Your task to perform on an android device: choose inbox layout in the gmail app Image 0: 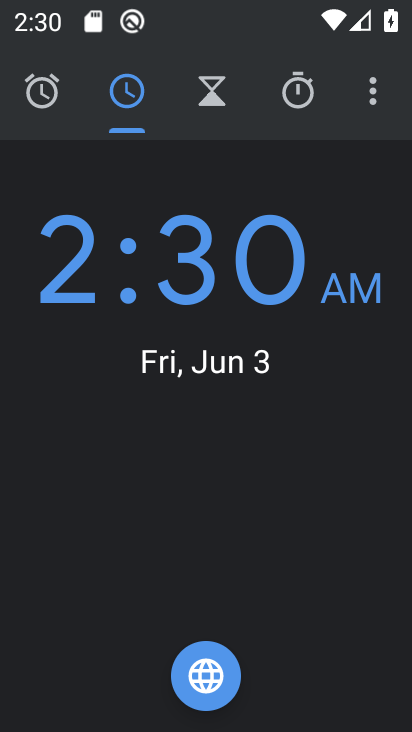
Step 0: press back button
Your task to perform on an android device: choose inbox layout in the gmail app Image 1: 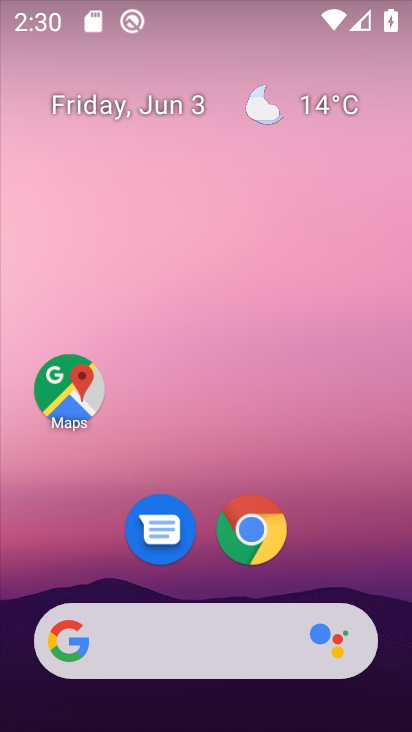
Step 1: drag from (224, 663) to (118, 23)
Your task to perform on an android device: choose inbox layout in the gmail app Image 2: 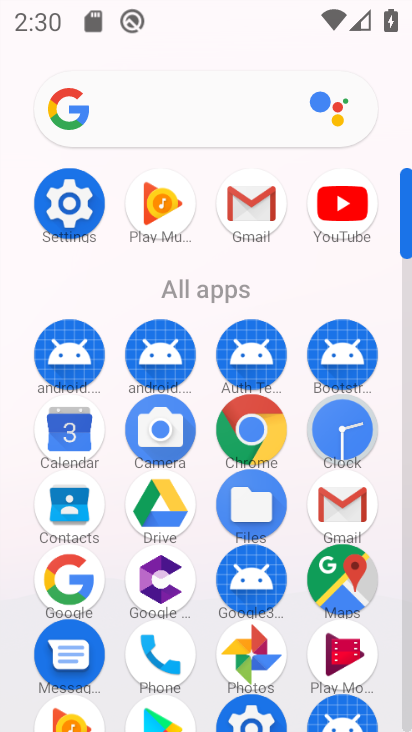
Step 2: click (339, 487)
Your task to perform on an android device: choose inbox layout in the gmail app Image 3: 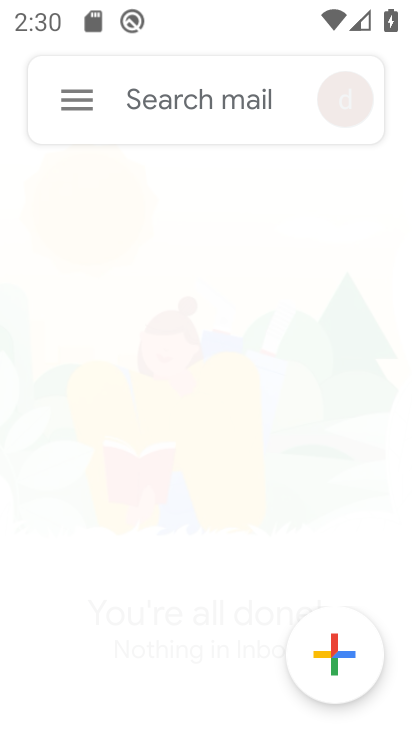
Step 3: click (71, 96)
Your task to perform on an android device: choose inbox layout in the gmail app Image 4: 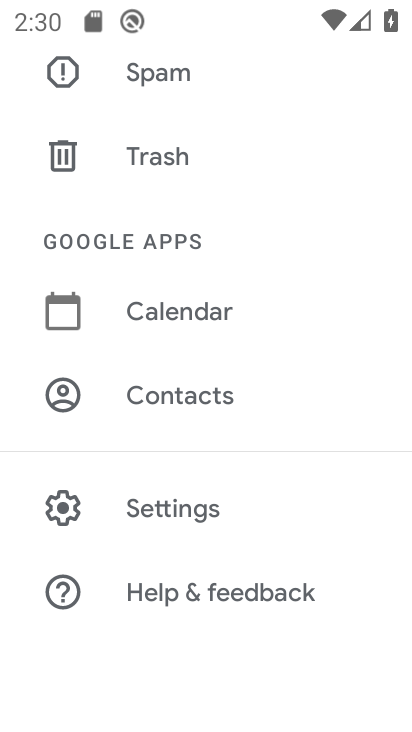
Step 4: click (166, 508)
Your task to perform on an android device: choose inbox layout in the gmail app Image 5: 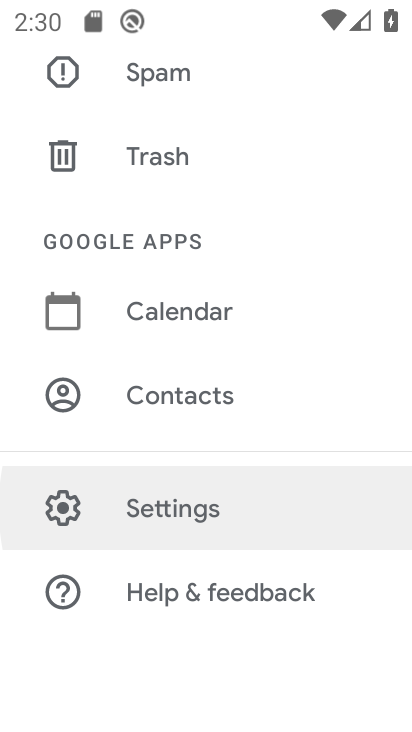
Step 5: click (166, 508)
Your task to perform on an android device: choose inbox layout in the gmail app Image 6: 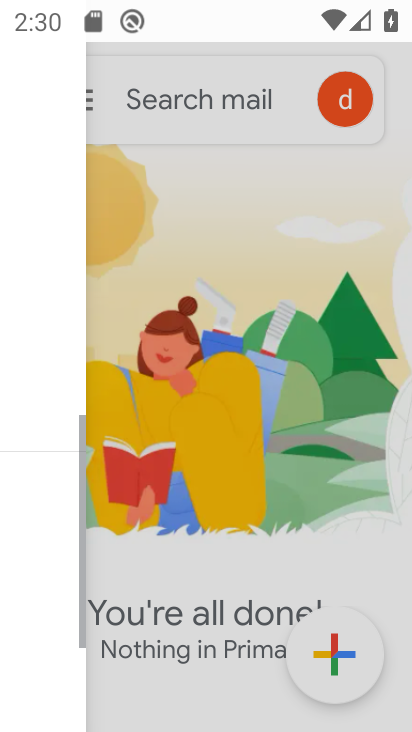
Step 6: click (166, 508)
Your task to perform on an android device: choose inbox layout in the gmail app Image 7: 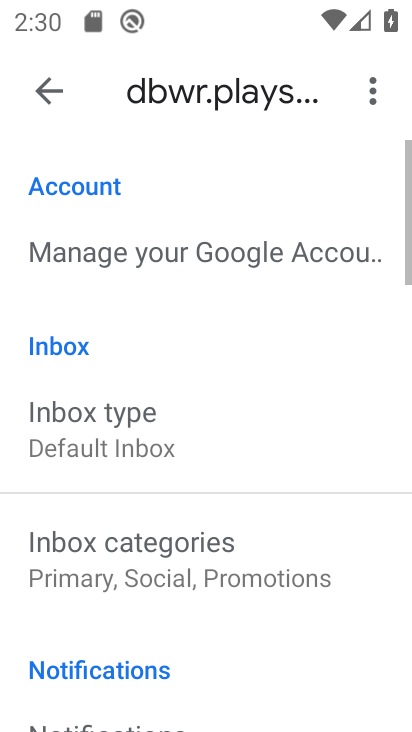
Step 7: click (89, 439)
Your task to perform on an android device: choose inbox layout in the gmail app Image 8: 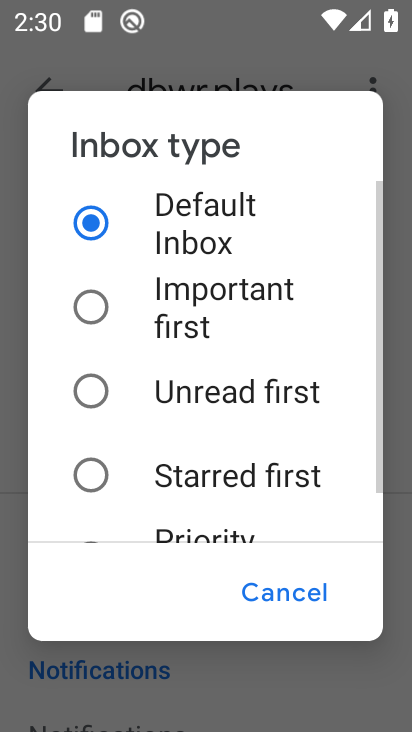
Step 8: click (316, 594)
Your task to perform on an android device: choose inbox layout in the gmail app Image 9: 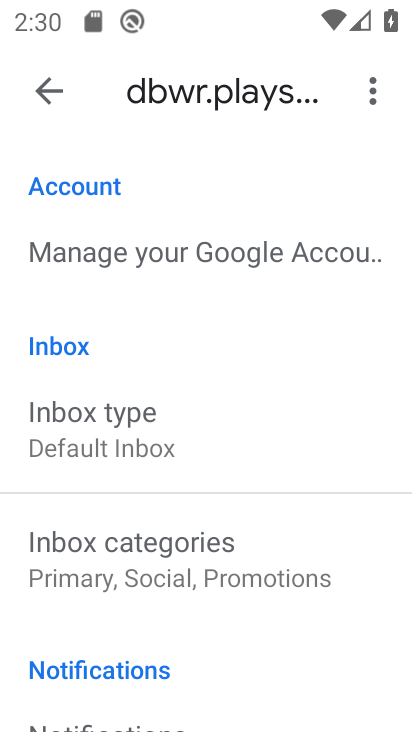
Step 9: task complete